Your task to perform on an android device: move a message to another label in the gmail app Image 0: 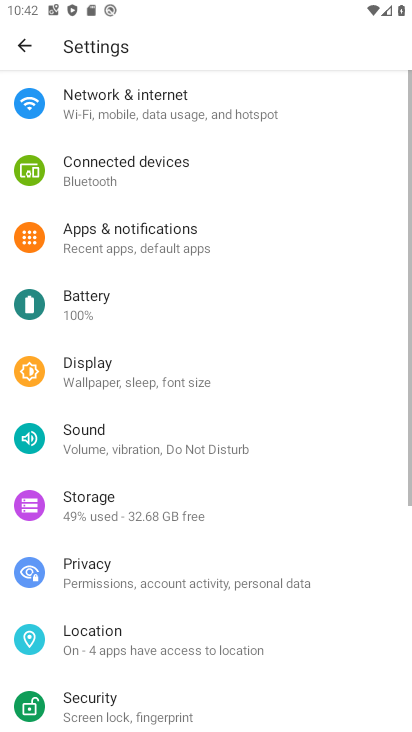
Step 0: press home button
Your task to perform on an android device: move a message to another label in the gmail app Image 1: 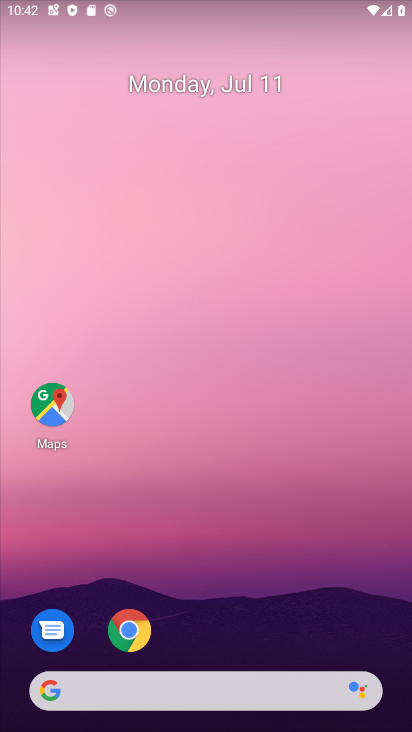
Step 1: drag from (256, 643) to (210, 203)
Your task to perform on an android device: move a message to another label in the gmail app Image 2: 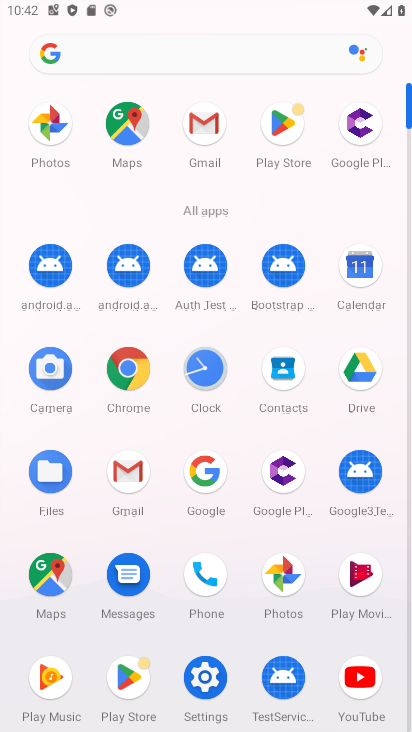
Step 2: click (217, 119)
Your task to perform on an android device: move a message to another label in the gmail app Image 3: 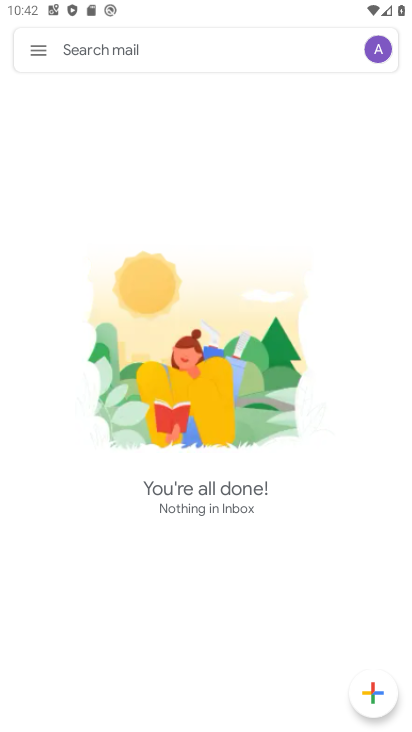
Step 3: task complete